Your task to perform on an android device: Search for Italian restaurants on Maps Image 0: 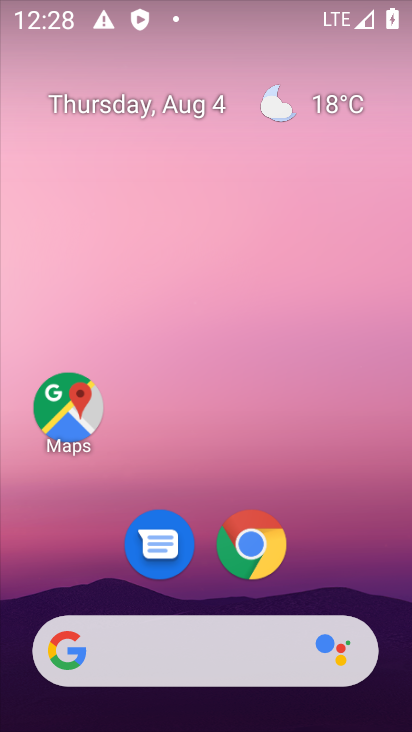
Step 0: click (79, 404)
Your task to perform on an android device: Search for Italian restaurants on Maps Image 1: 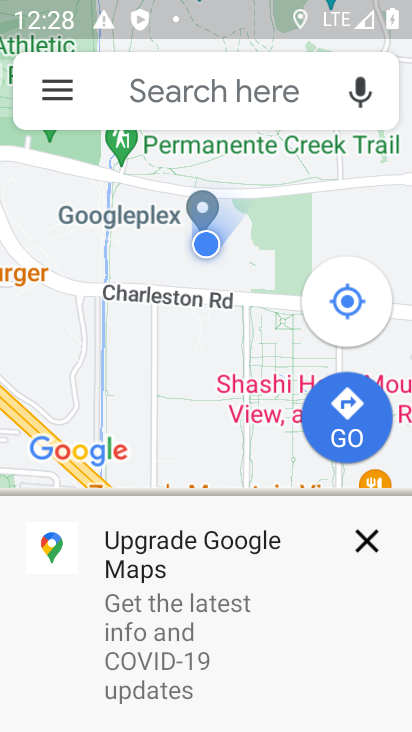
Step 1: task complete